Your task to perform on an android device: toggle show notifications on the lock screen Image 0: 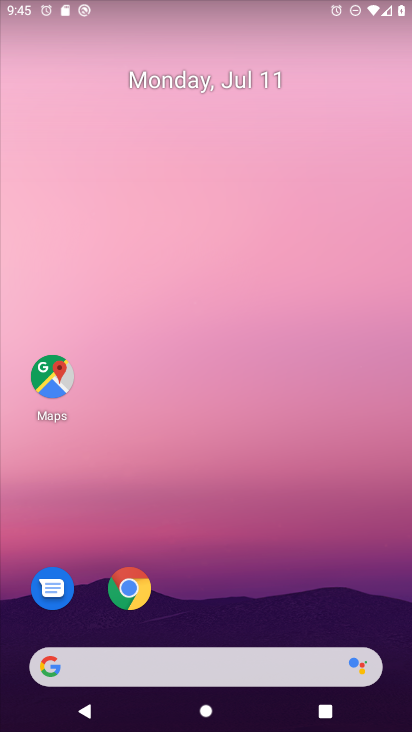
Step 0: drag from (173, 666) to (256, 72)
Your task to perform on an android device: toggle show notifications on the lock screen Image 1: 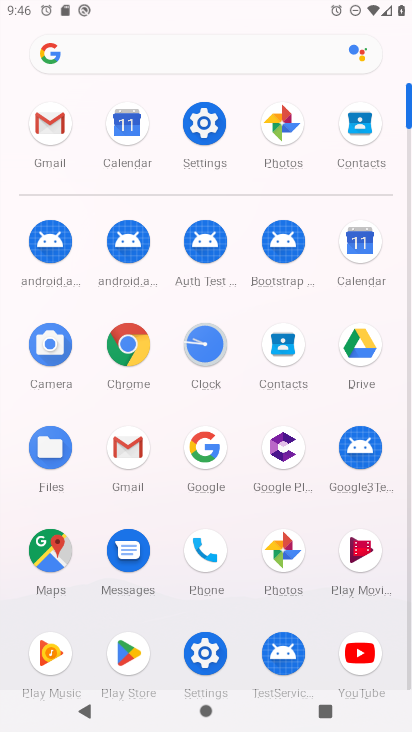
Step 1: click (211, 127)
Your task to perform on an android device: toggle show notifications on the lock screen Image 2: 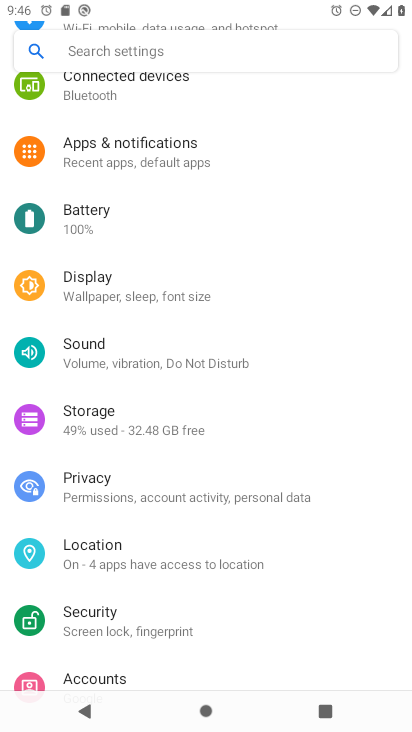
Step 2: drag from (281, 146) to (239, 443)
Your task to perform on an android device: toggle show notifications on the lock screen Image 3: 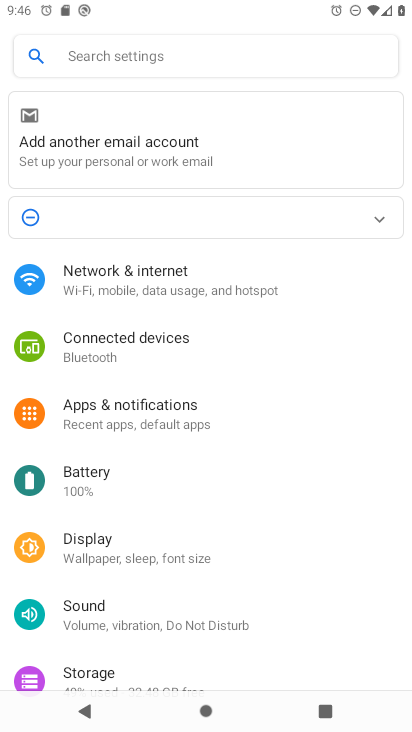
Step 3: click (156, 403)
Your task to perform on an android device: toggle show notifications on the lock screen Image 4: 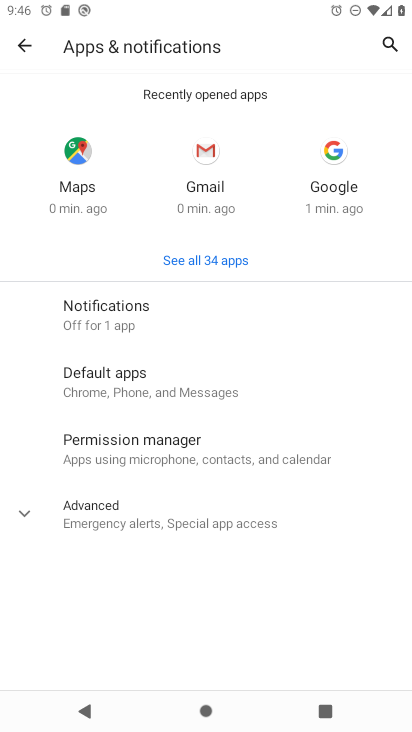
Step 4: click (113, 308)
Your task to perform on an android device: toggle show notifications on the lock screen Image 5: 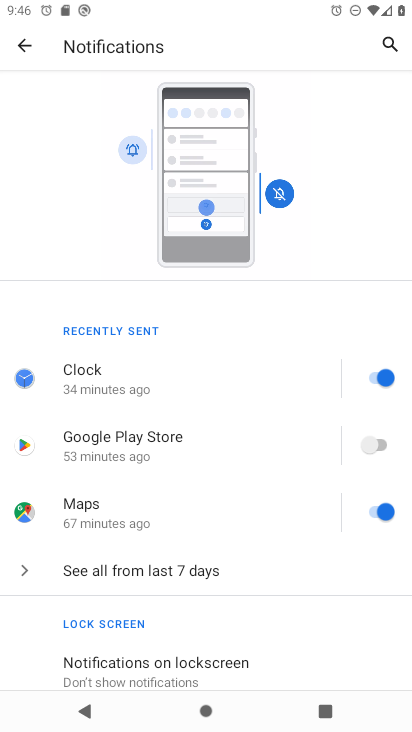
Step 5: click (195, 662)
Your task to perform on an android device: toggle show notifications on the lock screen Image 6: 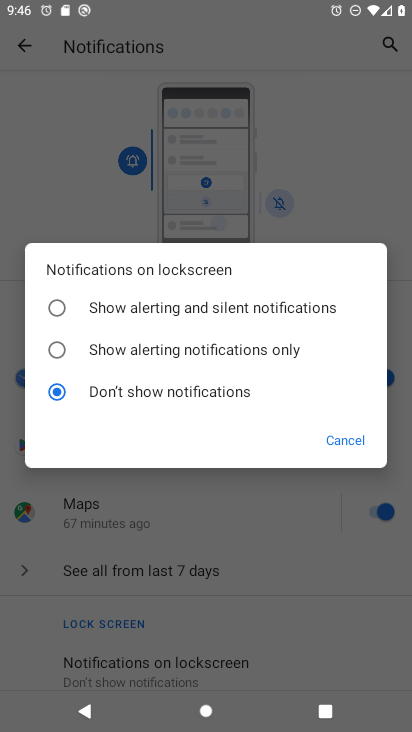
Step 6: click (61, 300)
Your task to perform on an android device: toggle show notifications on the lock screen Image 7: 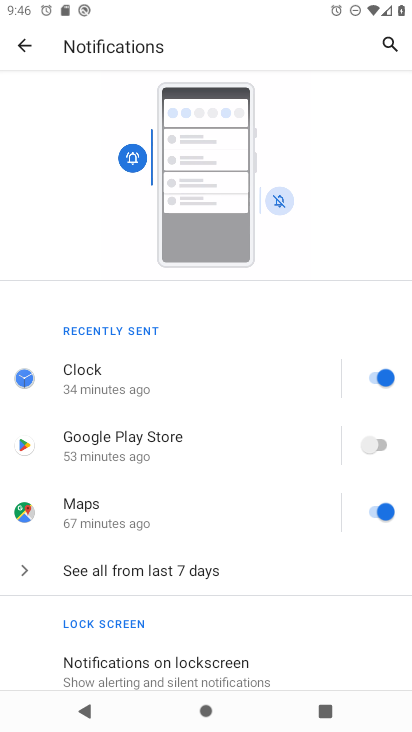
Step 7: task complete